Your task to perform on an android device: Open Chrome and go to the settings page Image 0: 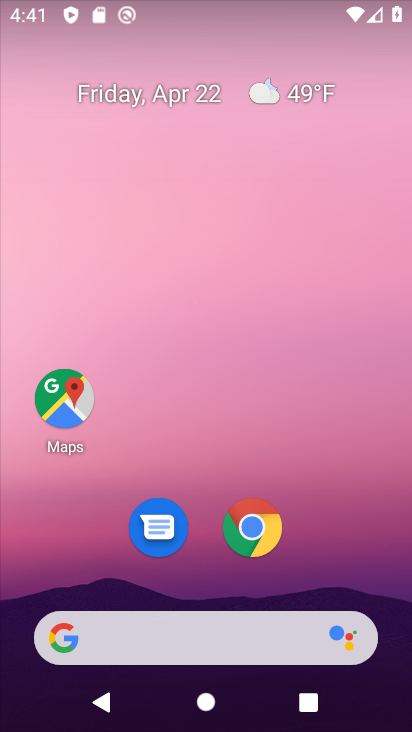
Step 0: drag from (268, 650) to (197, 11)
Your task to perform on an android device: Open Chrome and go to the settings page Image 1: 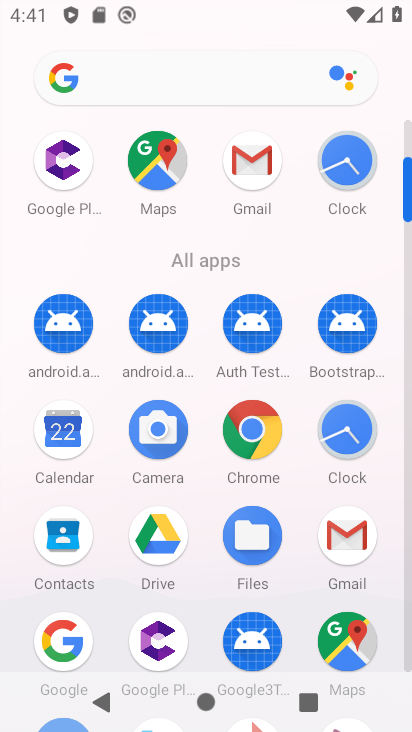
Step 1: click (250, 434)
Your task to perform on an android device: Open Chrome and go to the settings page Image 2: 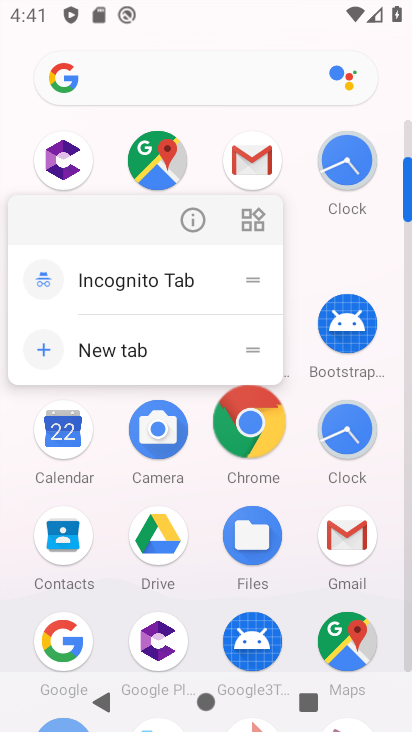
Step 2: click (249, 424)
Your task to perform on an android device: Open Chrome and go to the settings page Image 3: 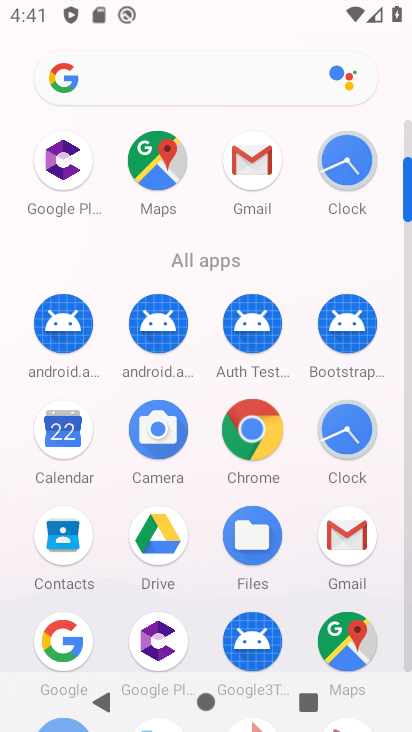
Step 3: click (248, 423)
Your task to perform on an android device: Open Chrome and go to the settings page Image 4: 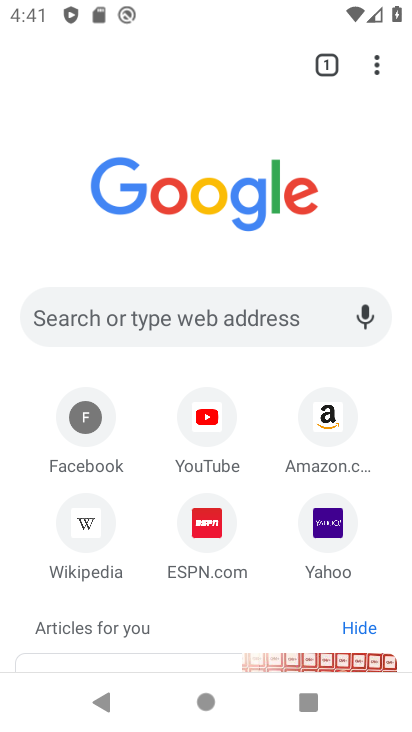
Step 4: drag from (380, 64) to (144, 555)
Your task to perform on an android device: Open Chrome and go to the settings page Image 5: 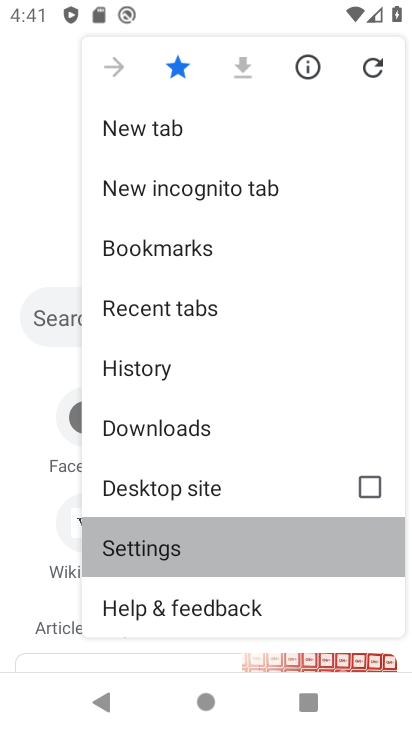
Step 5: click (146, 550)
Your task to perform on an android device: Open Chrome and go to the settings page Image 6: 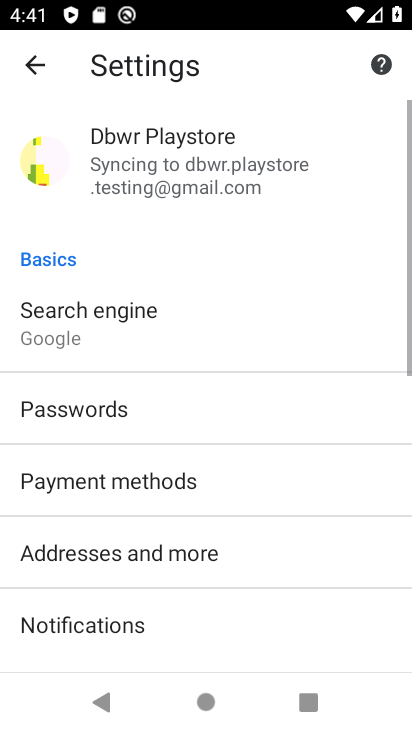
Step 6: click (148, 543)
Your task to perform on an android device: Open Chrome and go to the settings page Image 7: 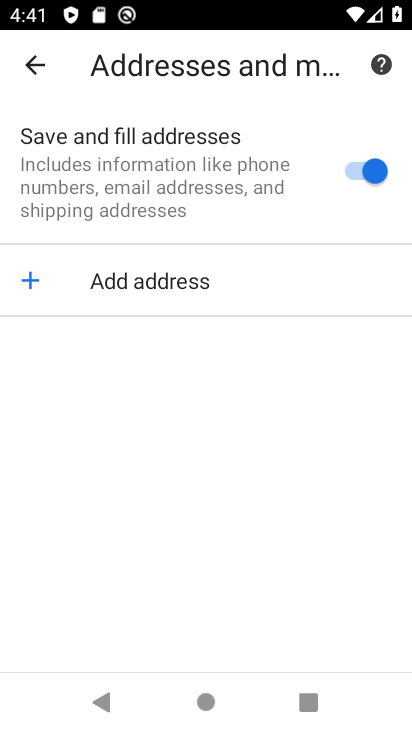
Step 7: click (30, 68)
Your task to perform on an android device: Open Chrome and go to the settings page Image 8: 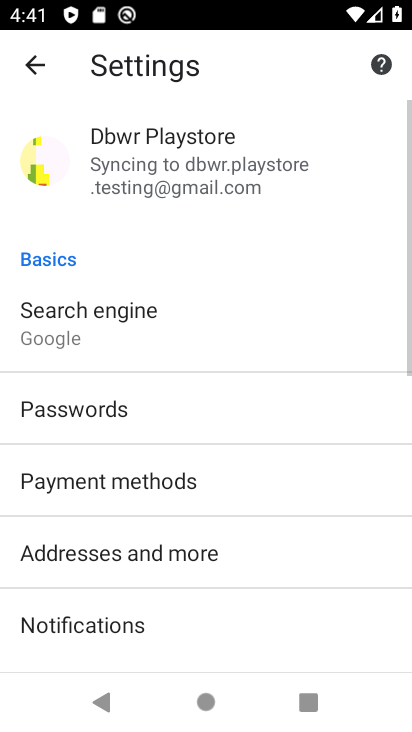
Step 8: drag from (192, 518) to (179, 163)
Your task to perform on an android device: Open Chrome and go to the settings page Image 9: 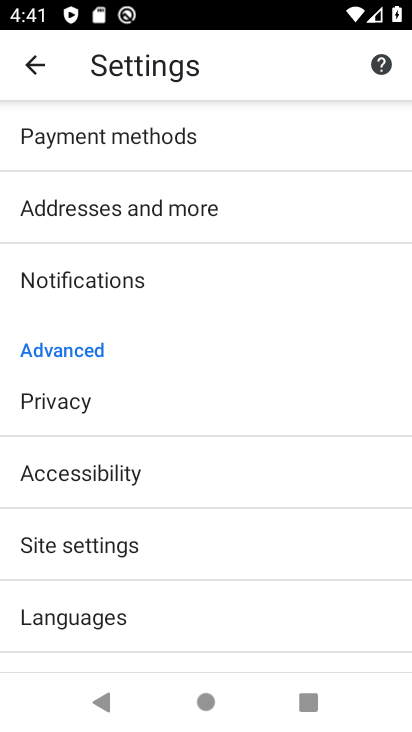
Step 9: click (74, 541)
Your task to perform on an android device: Open Chrome and go to the settings page Image 10: 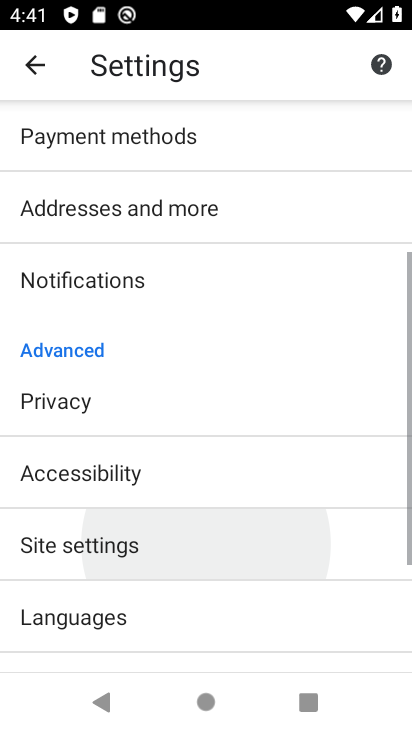
Step 10: click (66, 544)
Your task to perform on an android device: Open Chrome and go to the settings page Image 11: 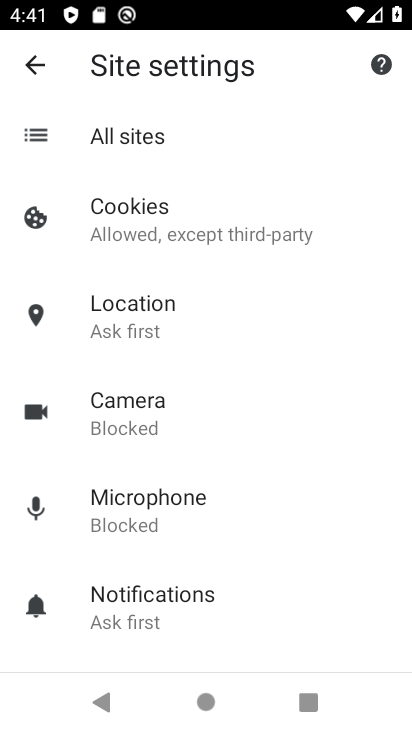
Step 11: task complete